Your task to perform on an android device: Open network settings Image 0: 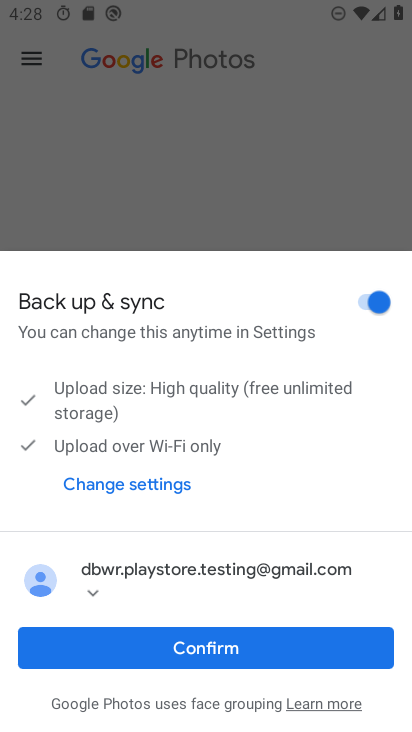
Step 0: press home button
Your task to perform on an android device: Open network settings Image 1: 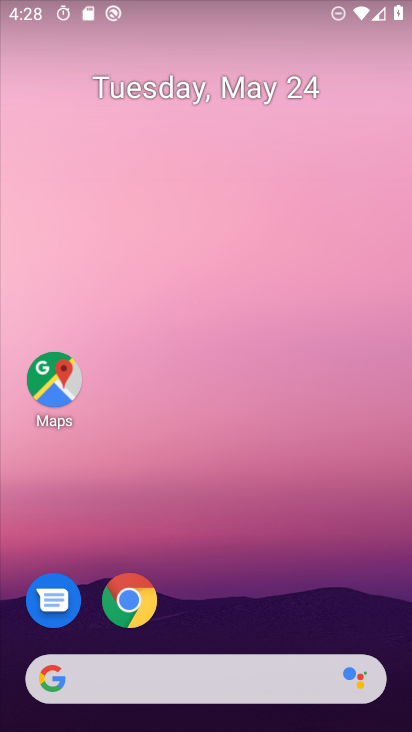
Step 1: drag from (230, 628) to (276, 32)
Your task to perform on an android device: Open network settings Image 2: 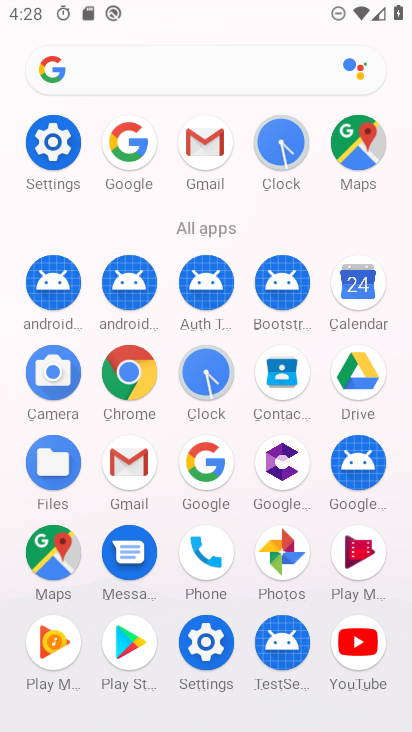
Step 2: click (51, 147)
Your task to perform on an android device: Open network settings Image 3: 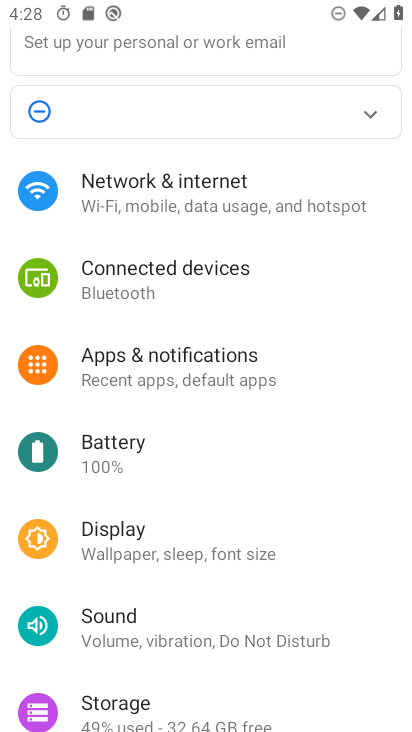
Step 3: click (157, 203)
Your task to perform on an android device: Open network settings Image 4: 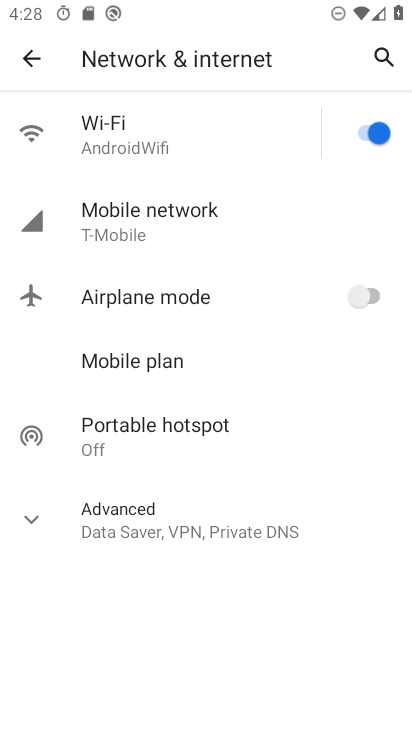
Step 4: click (119, 237)
Your task to perform on an android device: Open network settings Image 5: 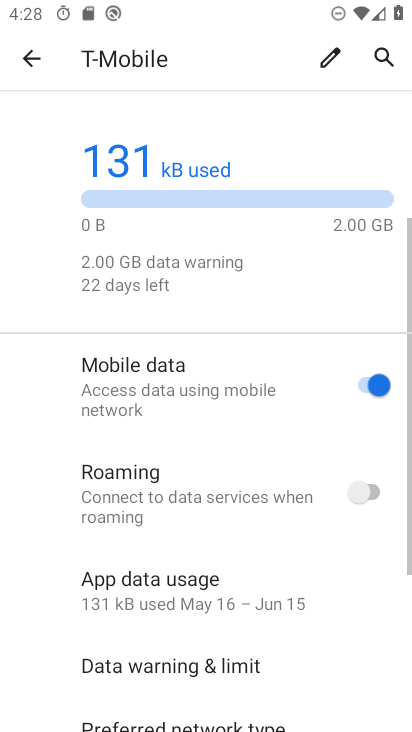
Step 5: drag from (179, 545) to (197, 87)
Your task to perform on an android device: Open network settings Image 6: 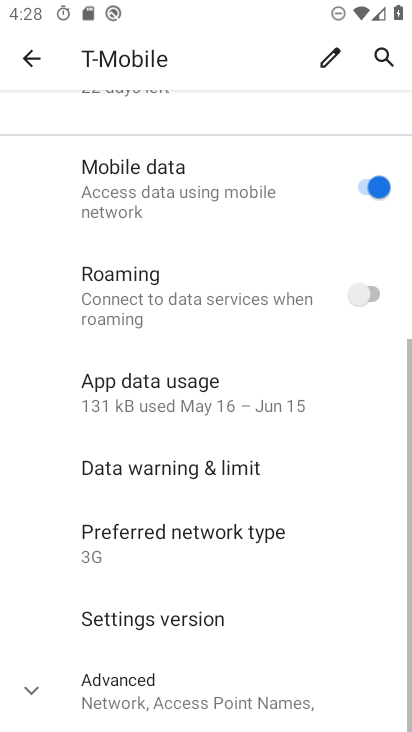
Step 6: drag from (185, 641) to (190, 294)
Your task to perform on an android device: Open network settings Image 7: 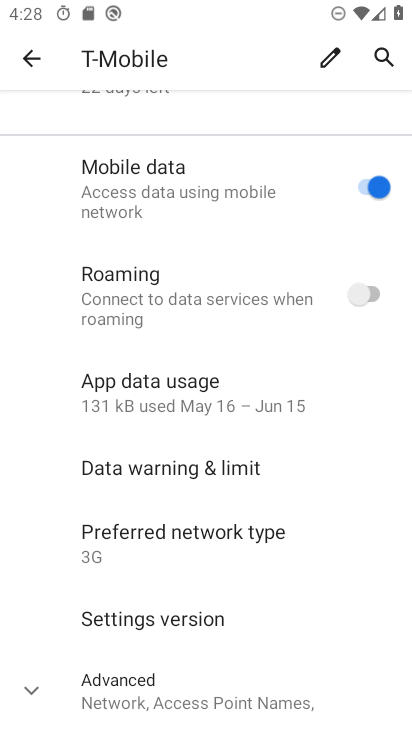
Step 7: click (36, 698)
Your task to perform on an android device: Open network settings Image 8: 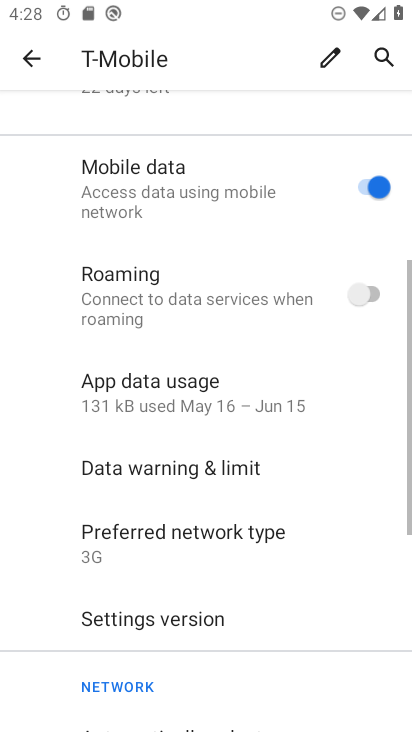
Step 8: task complete